Your task to perform on an android device: turn off smart reply in the gmail app Image 0: 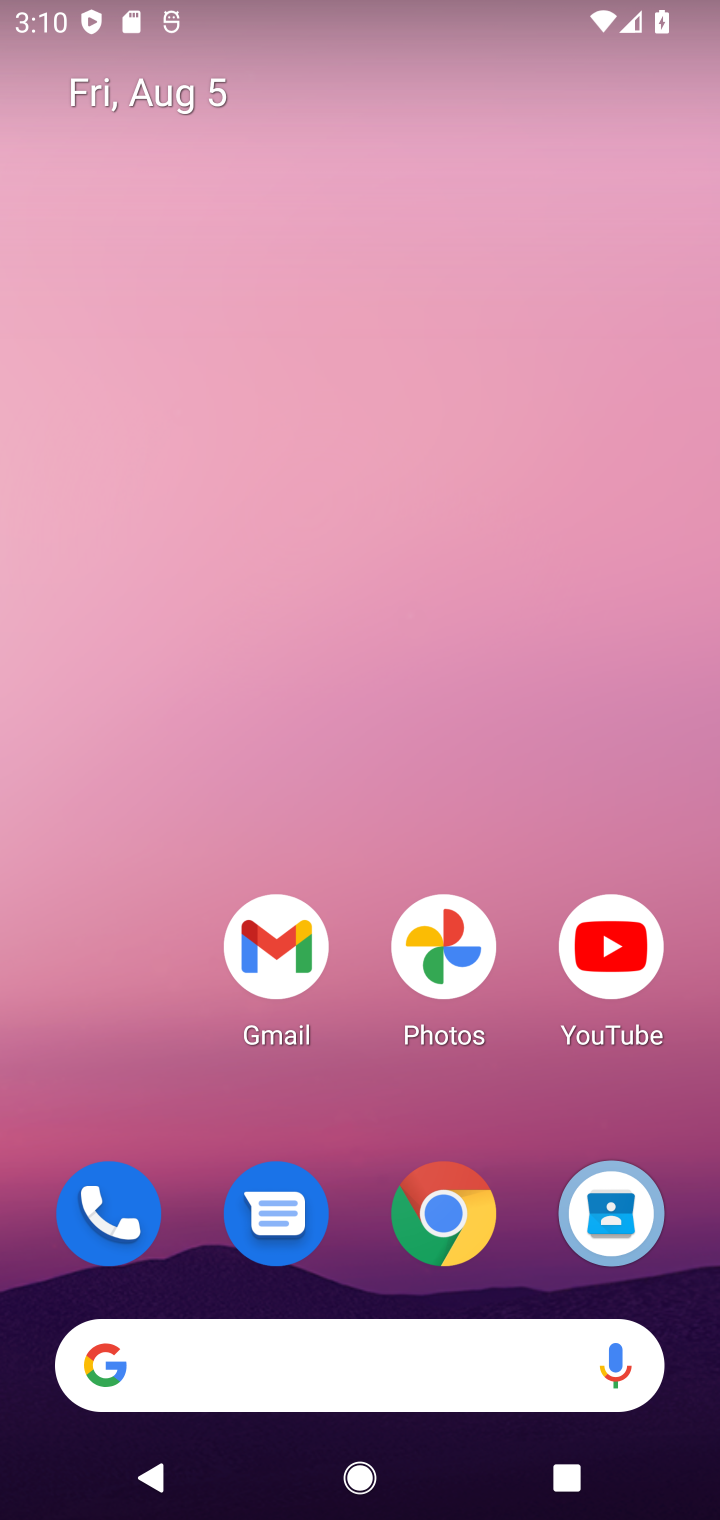
Step 0: click (282, 947)
Your task to perform on an android device: turn off smart reply in the gmail app Image 1: 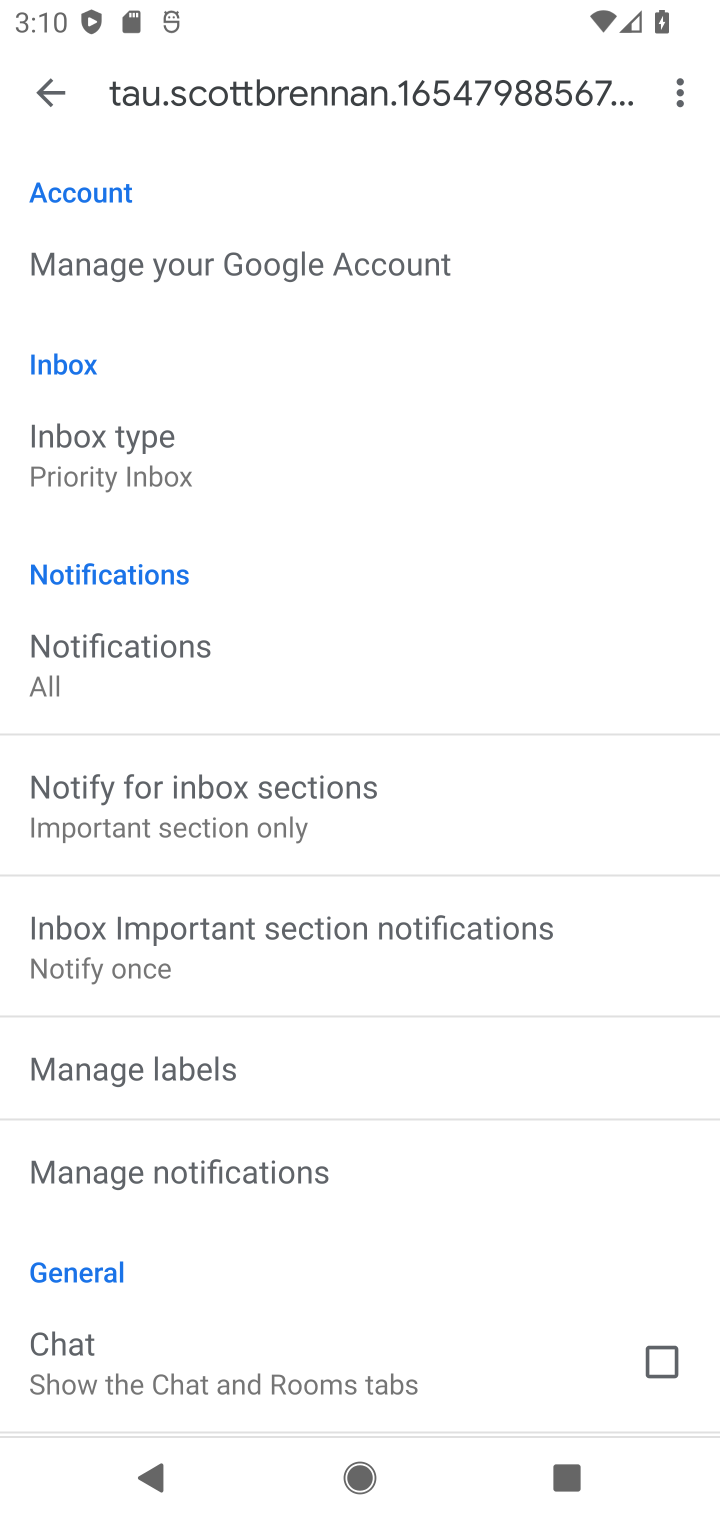
Step 1: drag from (373, 1220) to (381, 109)
Your task to perform on an android device: turn off smart reply in the gmail app Image 2: 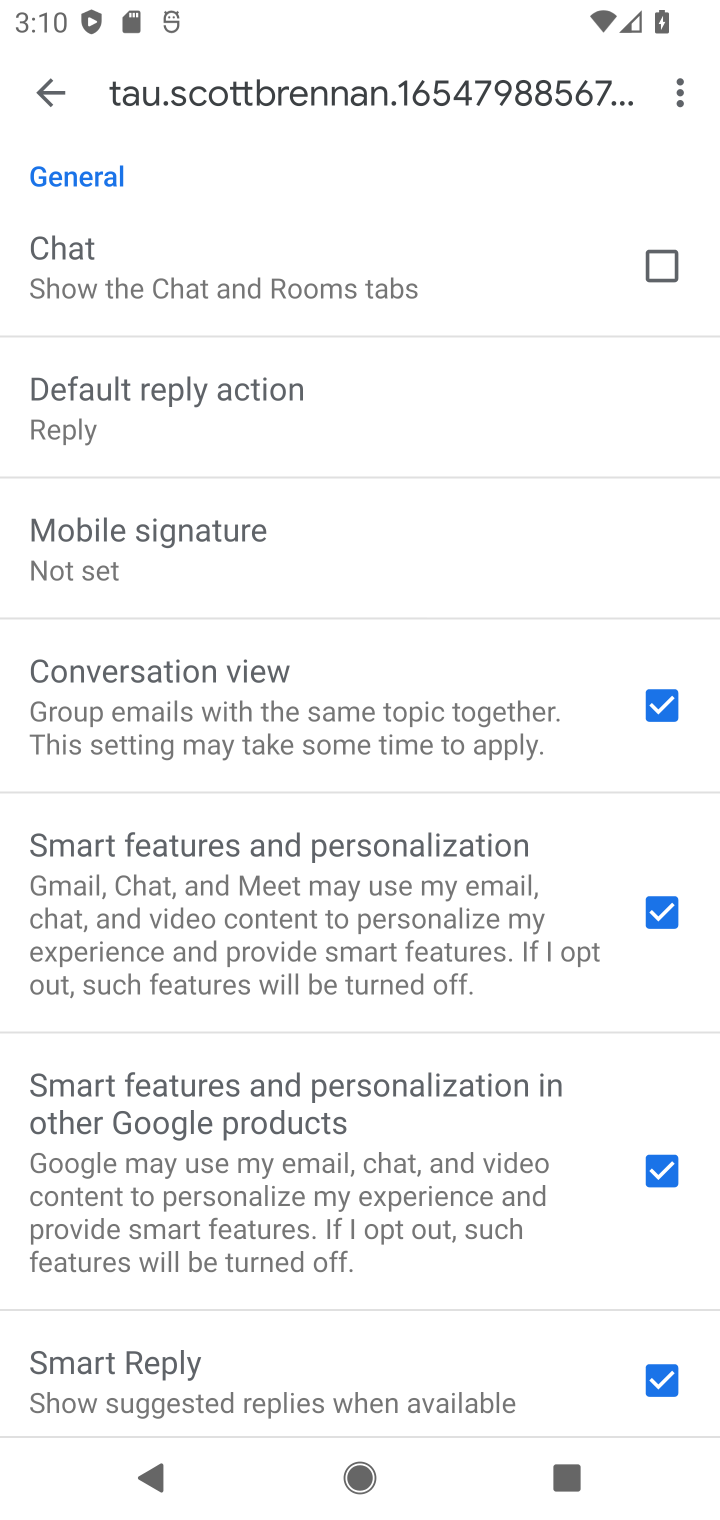
Step 2: click (661, 1381)
Your task to perform on an android device: turn off smart reply in the gmail app Image 3: 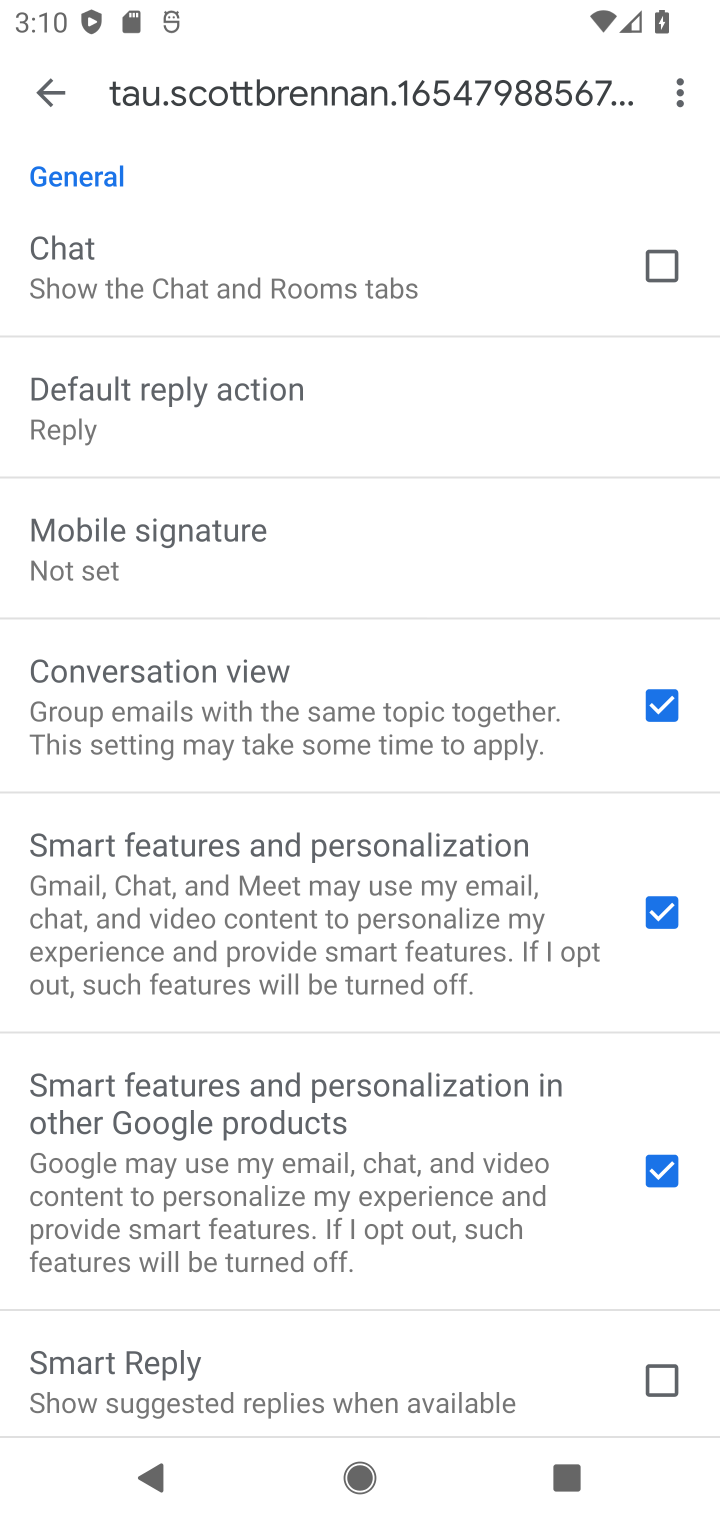
Step 3: task complete